Your task to perform on an android device: open app "Paramount+ | Peak Streaming" (install if not already installed) and enter user name: "fostered@yahoo.com" and password: "strong" Image 0: 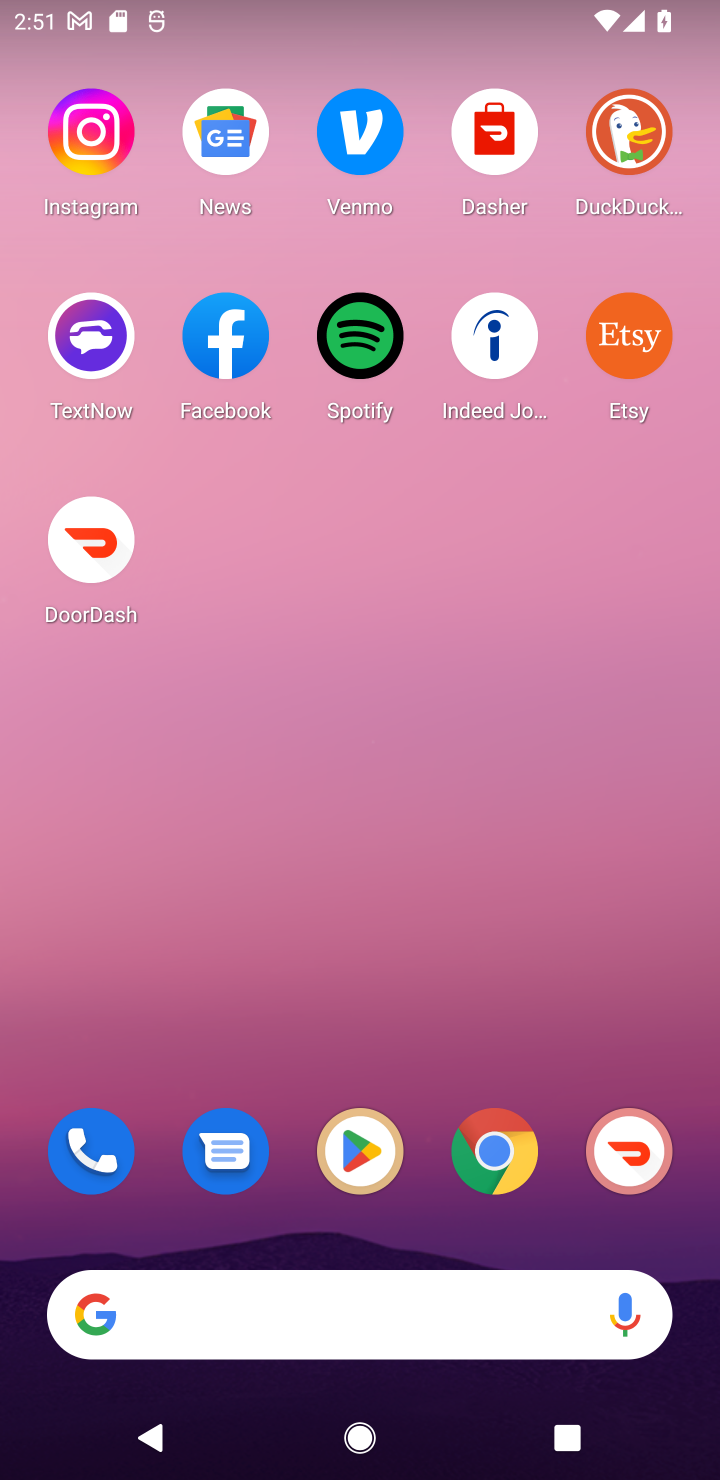
Step 0: press home button
Your task to perform on an android device: open app "Paramount+ | Peak Streaming" (install if not already installed) and enter user name: "fostered@yahoo.com" and password: "strong" Image 1: 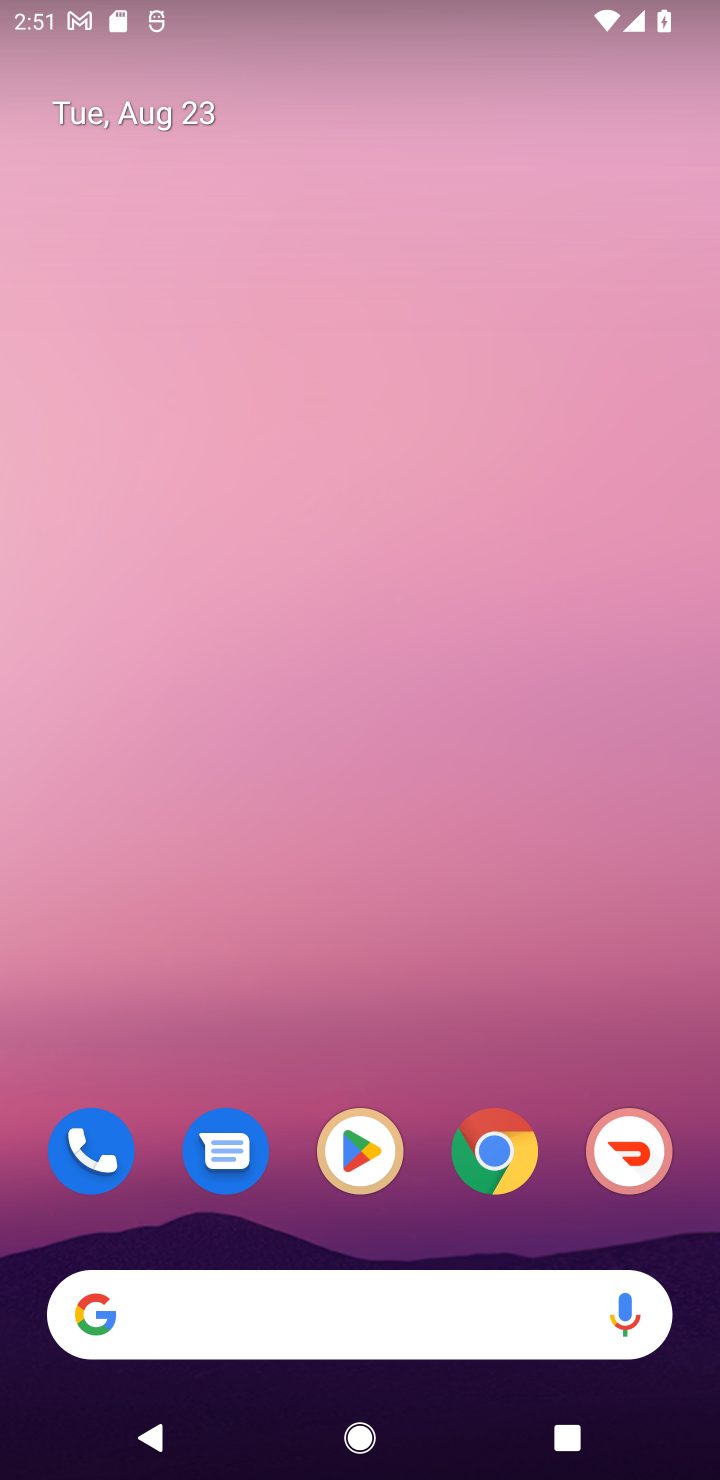
Step 1: click (373, 1140)
Your task to perform on an android device: open app "Paramount+ | Peak Streaming" (install if not already installed) and enter user name: "fostered@yahoo.com" and password: "strong" Image 2: 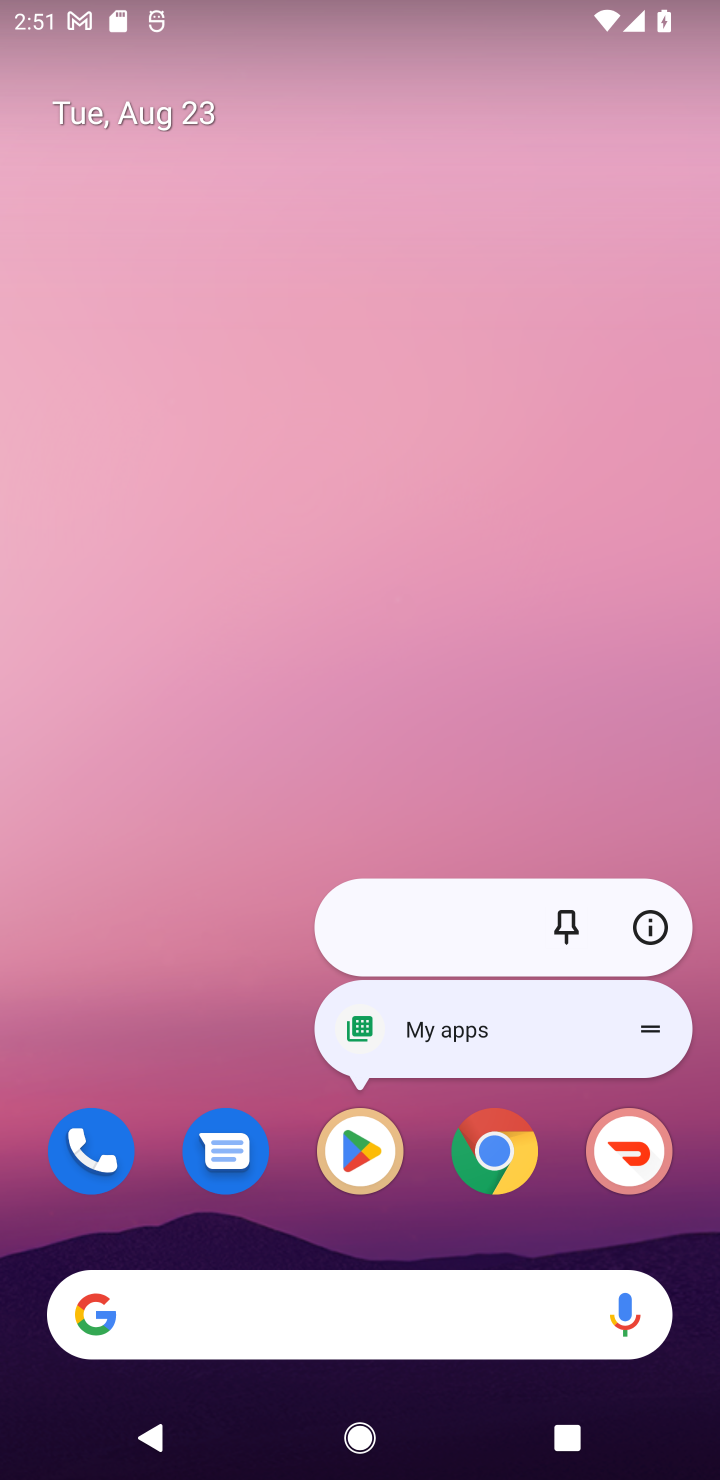
Step 2: click (375, 1151)
Your task to perform on an android device: open app "Paramount+ | Peak Streaming" (install if not already installed) and enter user name: "fostered@yahoo.com" and password: "strong" Image 3: 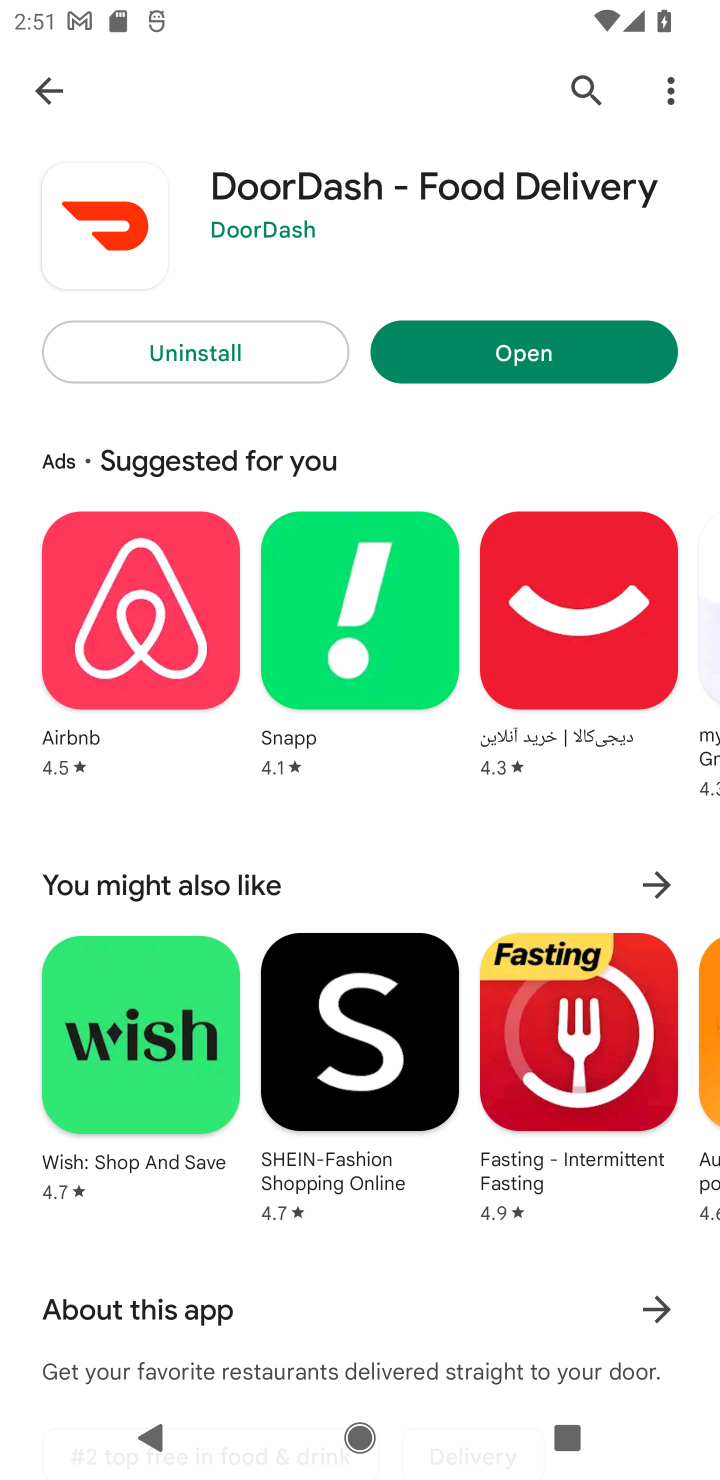
Step 3: click (584, 82)
Your task to perform on an android device: open app "Paramount+ | Peak Streaming" (install if not already installed) and enter user name: "fostered@yahoo.com" and password: "strong" Image 4: 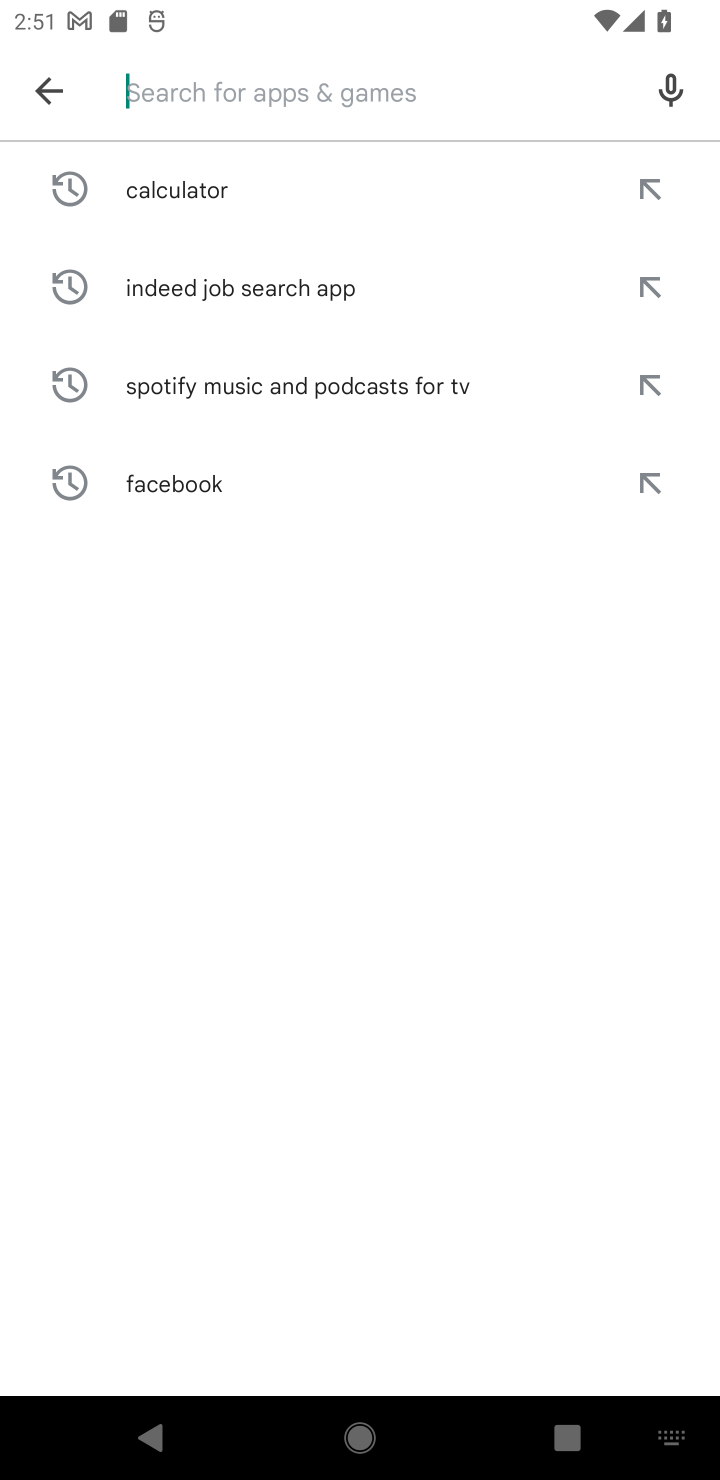
Step 4: type "Paramount+ | Peak Streaming"
Your task to perform on an android device: open app "Paramount+ | Peak Streaming" (install if not already installed) and enter user name: "fostered@yahoo.com" and password: "strong" Image 5: 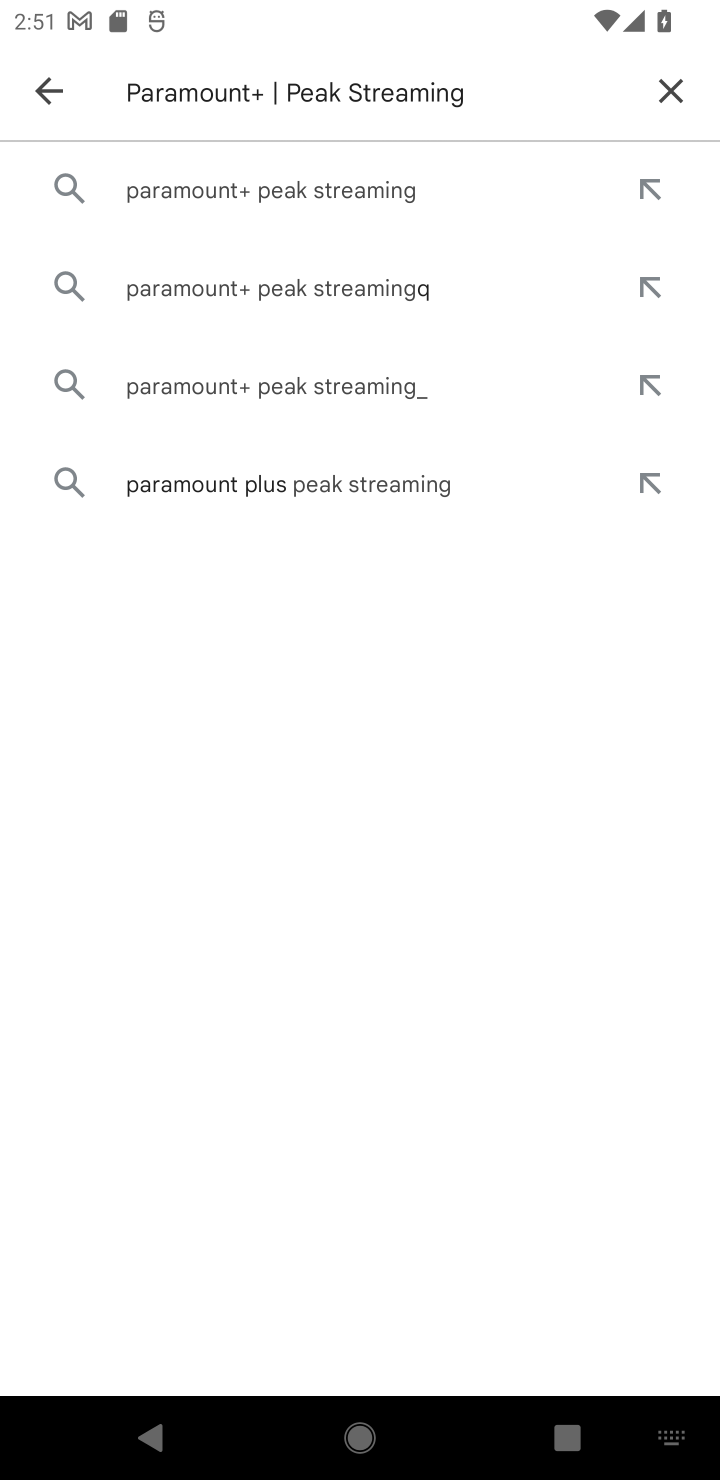
Step 5: click (317, 194)
Your task to perform on an android device: open app "Paramount+ | Peak Streaming" (install if not already installed) and enter user name: "fostered@yahoo.com" and password: "strong" Image 6: 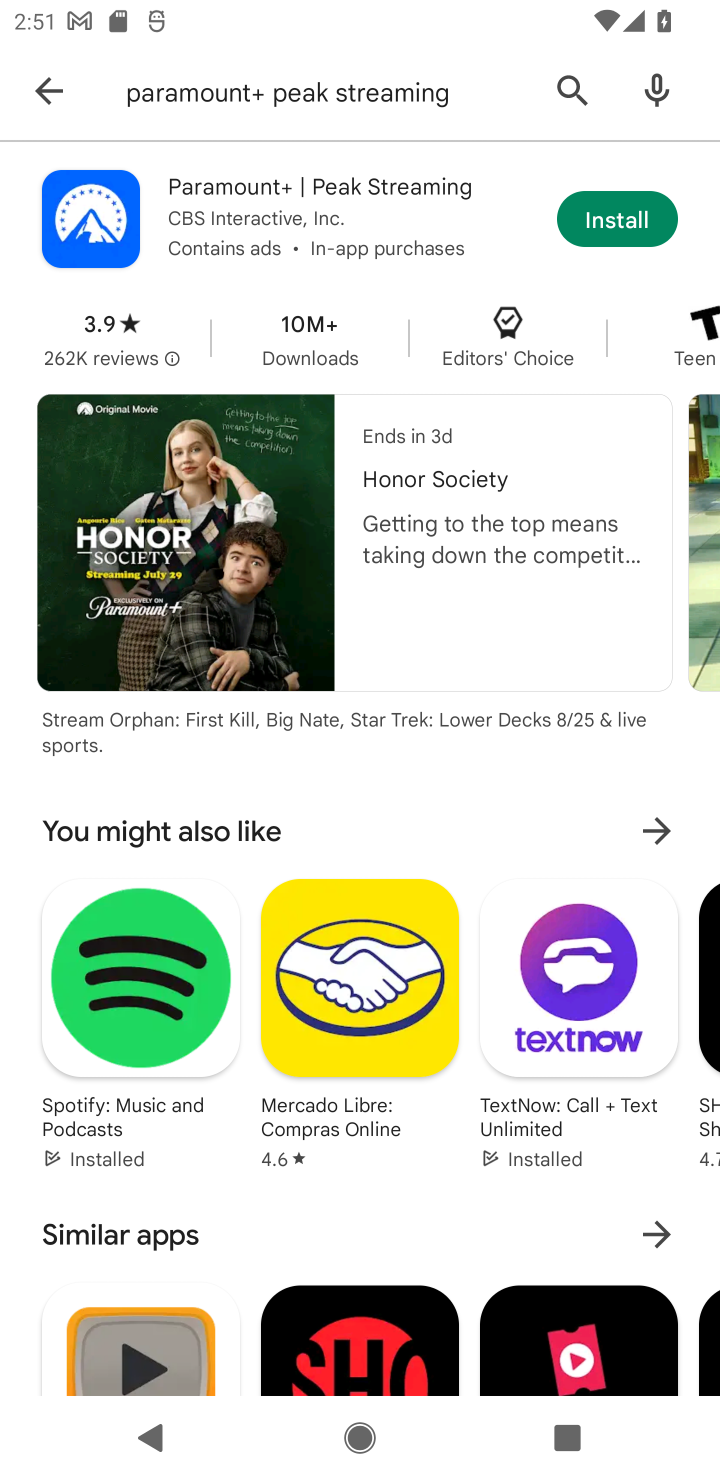
Step 6: click (623, 217)
Your task to perform on an android device: open app "Paramount+ | Peak Streaming" (install if not already installed) and enter user name: "fostered@yahoo.com" and password: "strong" Image 7: 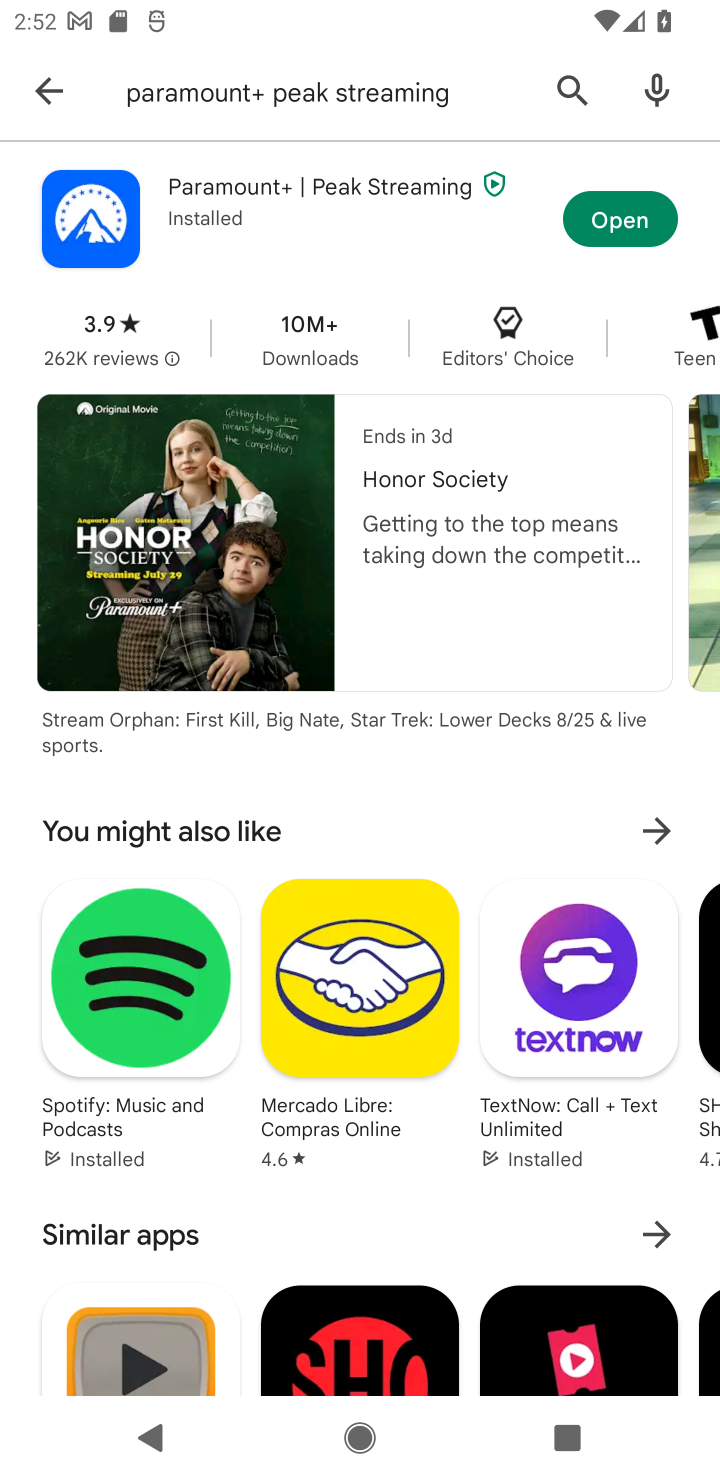
Step 7: click (631, 222)
Your task to perform on an android device: open app "Paramount+ | Peak Streaming" (install if not already installed) and enter user name: "fostered@yahoo.com" and password: "strong" Image 8: 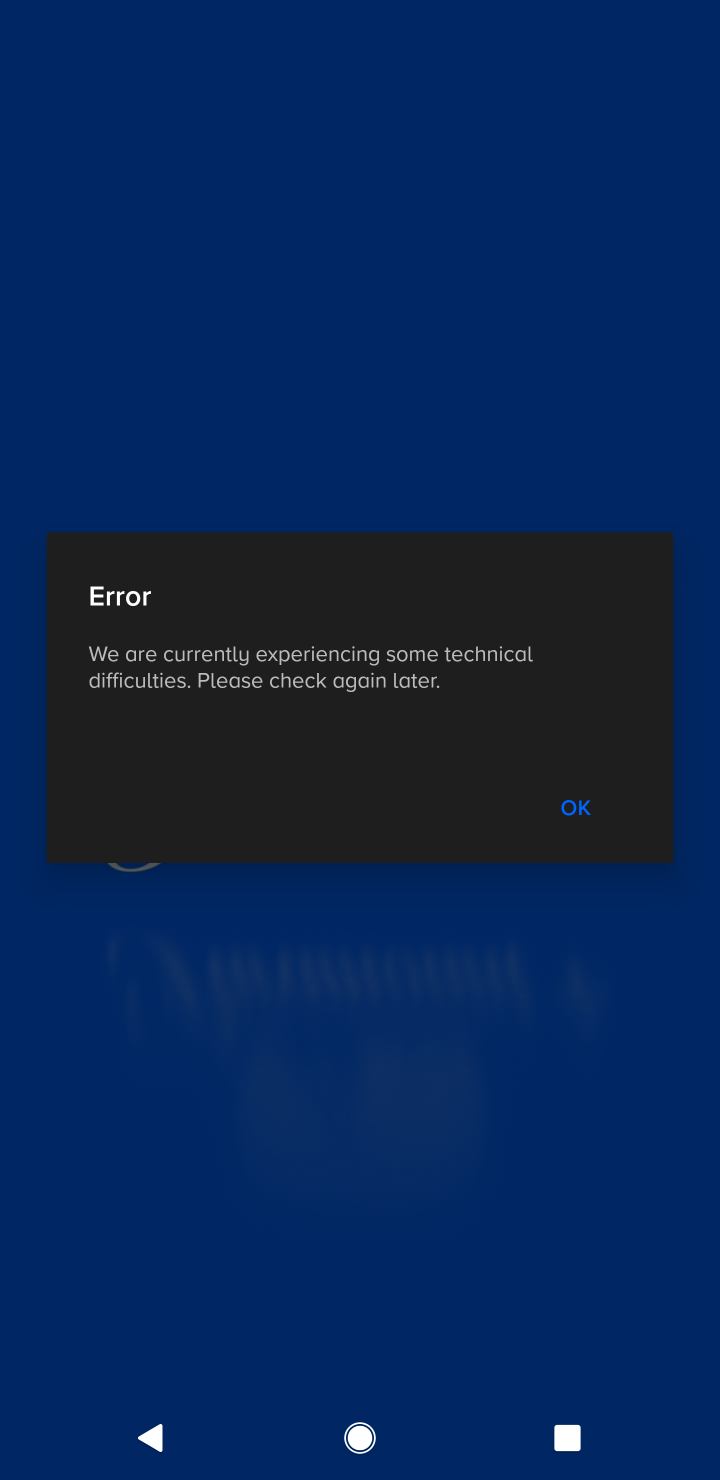
Step 8: task complete